Your task to perform on an android device: Search for flights from NYC to Sydney Image 0: 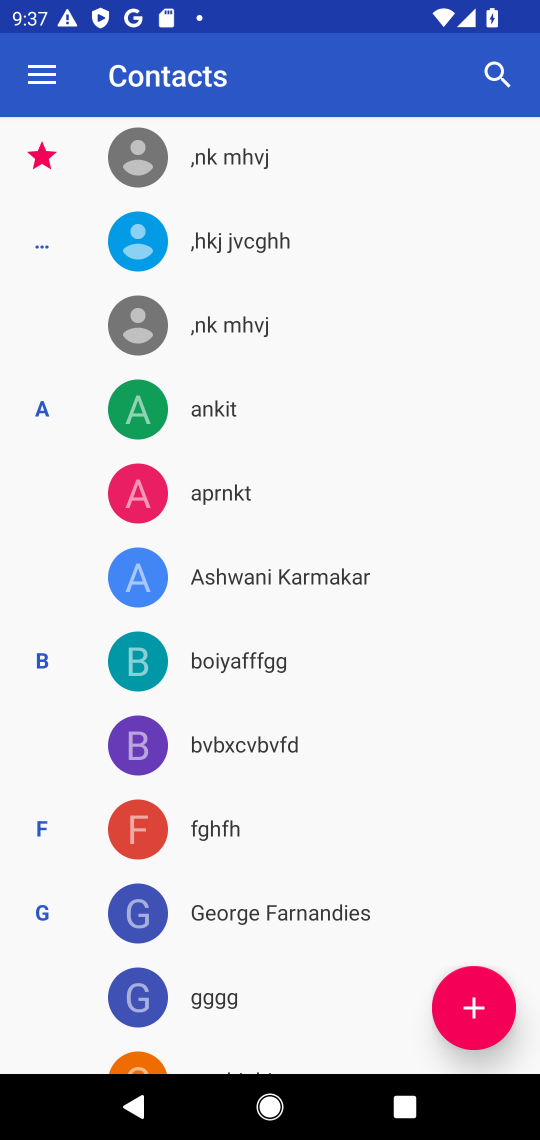
Step 0: press home button
Your task to perform on an android device: Search for flights from NYC to Sydney Image 1: 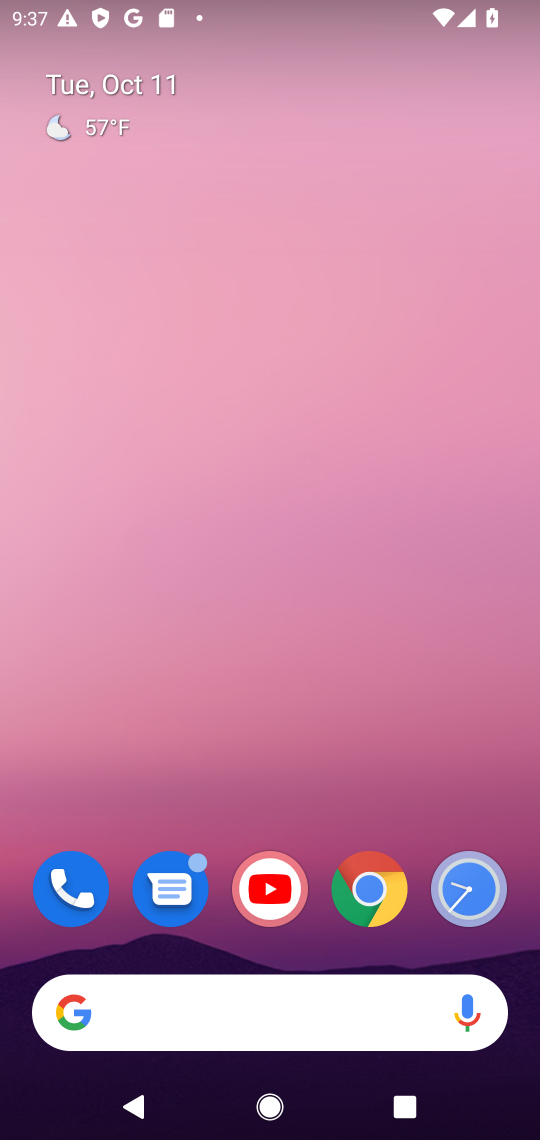
Step 1: click (212, 1003)
Your task to perform on an android device: Search for flights from NYC to Sydney Image 2: 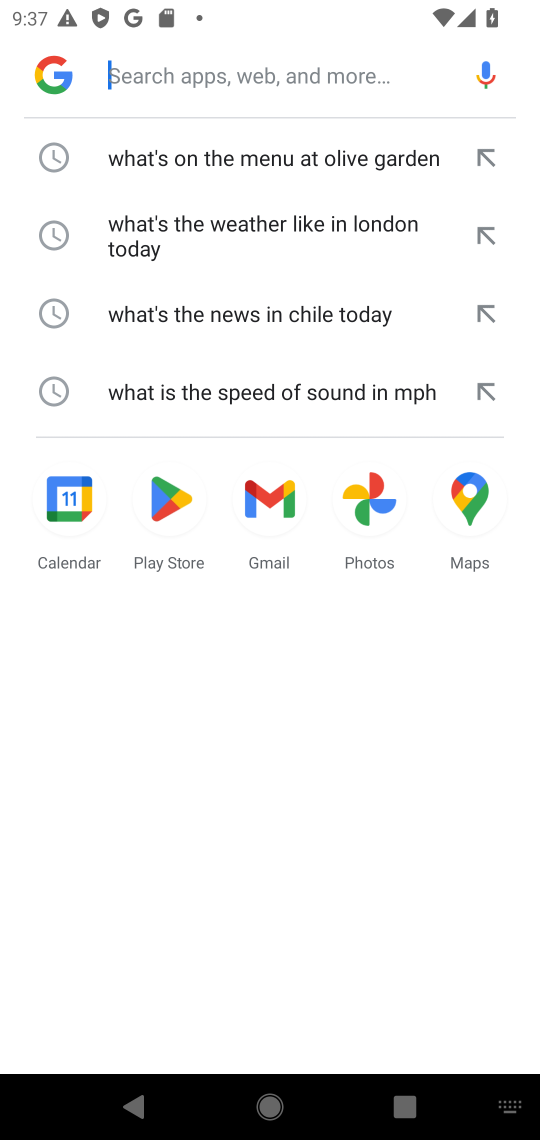
Step 2: click (177, 83)
Your task to perform on an android device: Search for flights from NYC to Sydney Image 3: 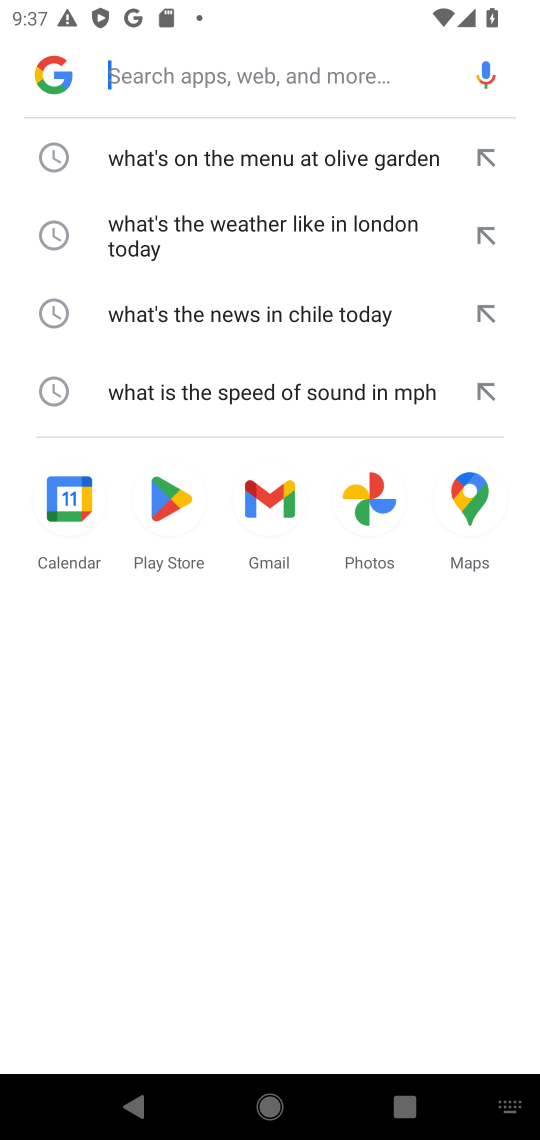
Step 3: type "flights from NYC to Sydney"
Your task to perform on an android device: Search for flights from NYC to Sydney Image 4: 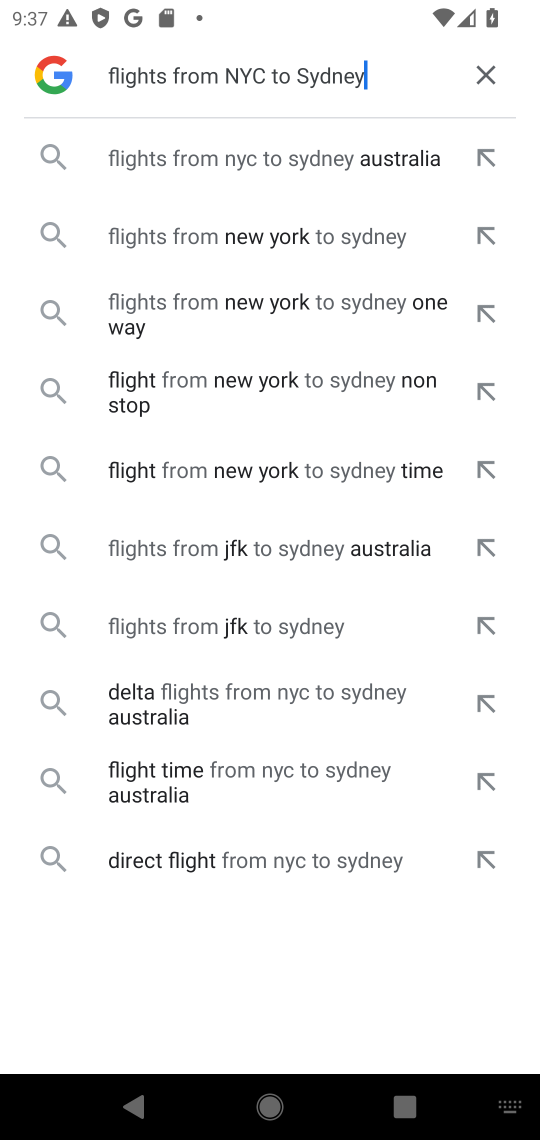
Step 4: click (143, 161)
Your task to perform on an android device: Search for flights from NYC to Sydney Image 5: 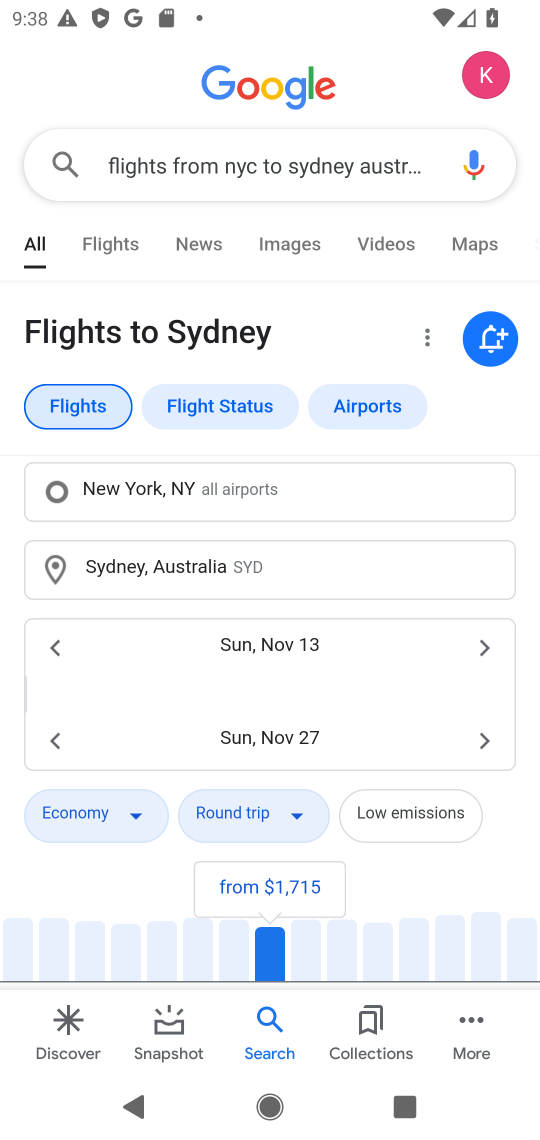
Step 5: task complete